Your task to perform on an android device: Go to Amazon Image 0: 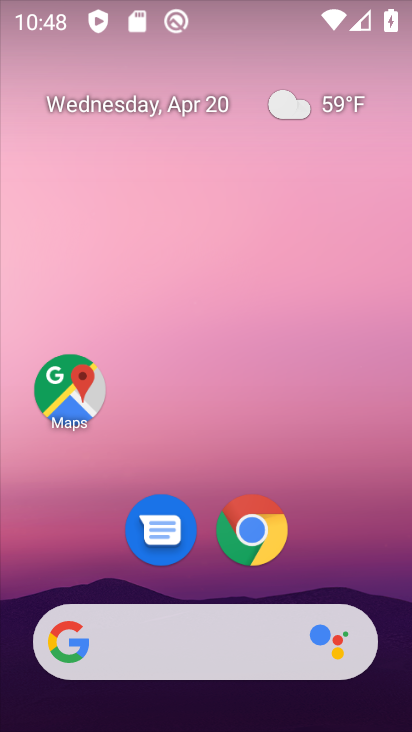
Step 0: click (243, 514)
Your task to perform on an android device: Go to Amazon Image 1: 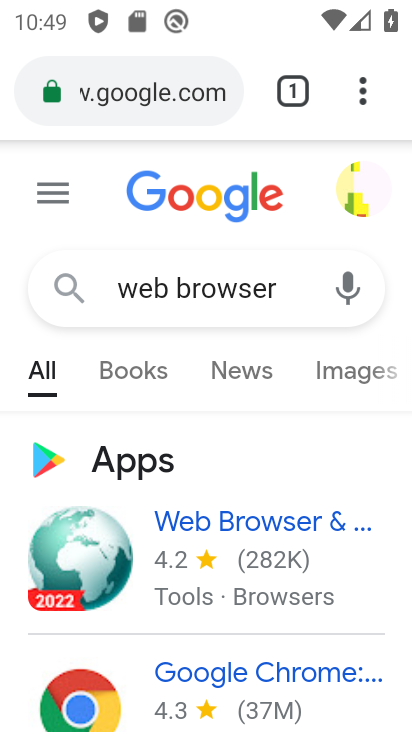
Step 1: drag from (370, 97) to (132, 189)
Your task to perform on an android device: Go to Amazon Image 2: 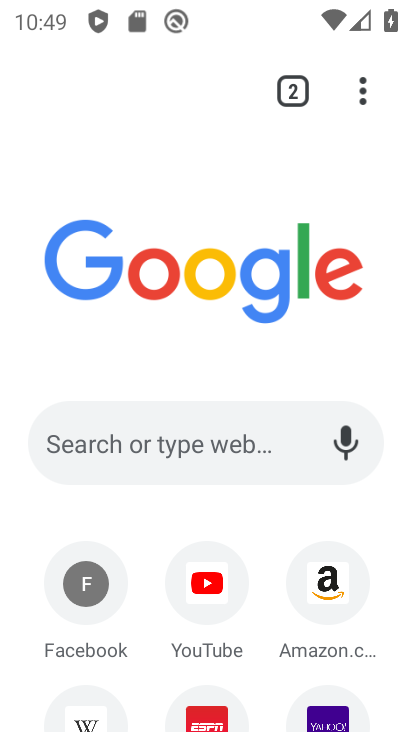
Step 2: click (329, 612)
Your task to perform on an android device: Go to Amazon Image 3: 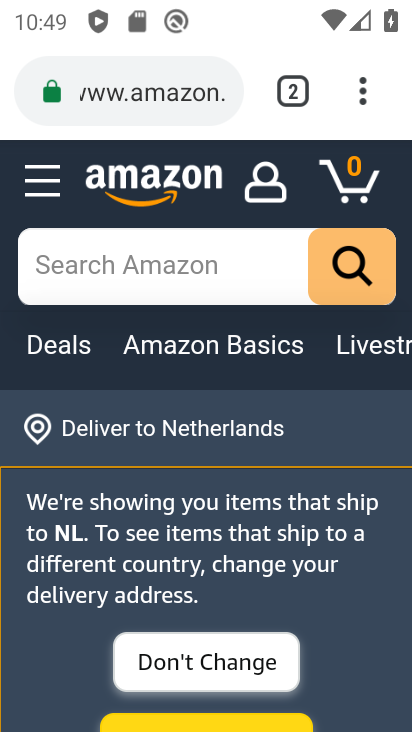
Step 3: task complete